Your task to perform on an android device: turn off airplane mode Image 0: 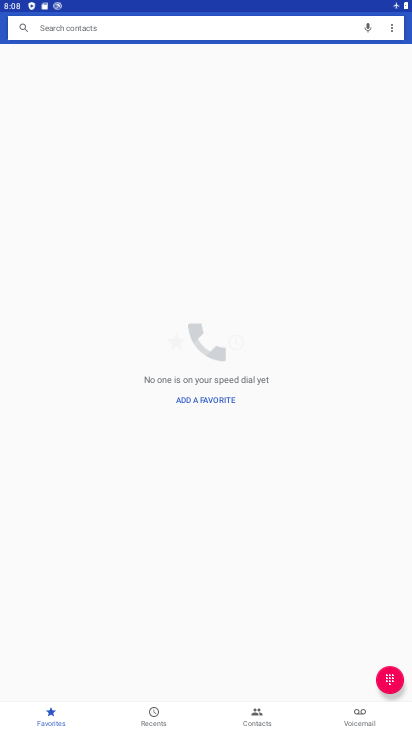
Step 0: press home button
Your task to perform on an android device: turn off airplane mode Image 1: 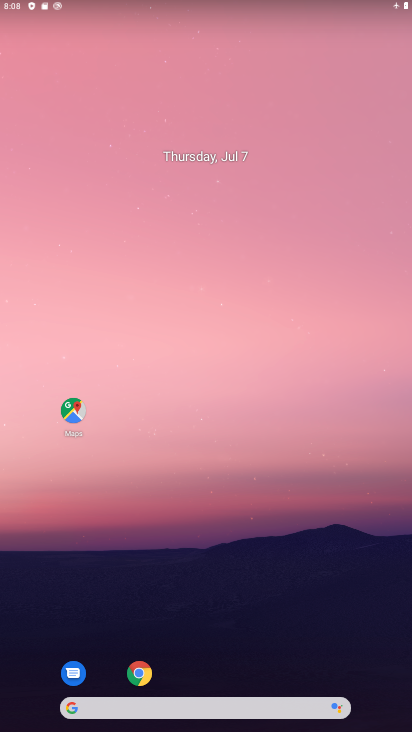
Step 1: drag from (175, 691) to (211, 5)
Your task to perform on an android device: turn off airplane mode Image 2: 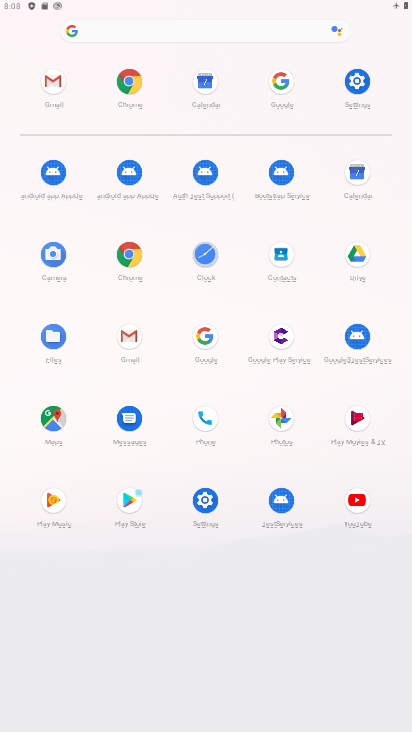
Step 2: click (215, 504)
Your task to perform on an android device: turn off airplane mode Image 3: 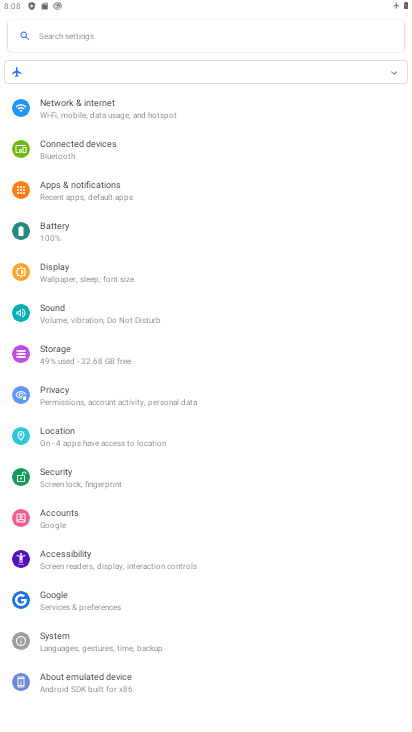
Step 3: click (95, 96)
Your task to perform on an android device: turn off airplane mode Image 4: 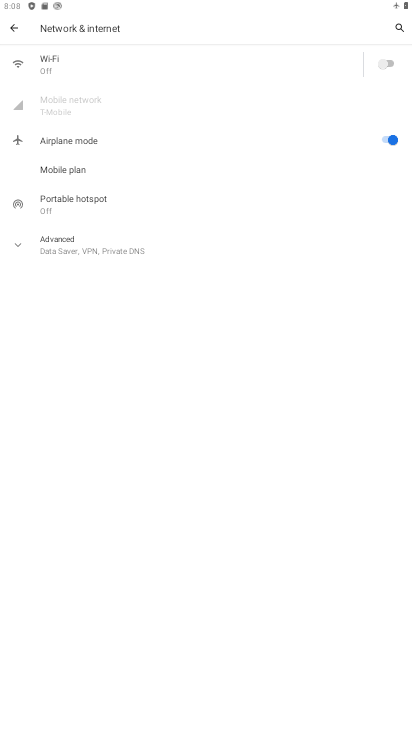
Step 4: click (382, 142)
Your task to perform on an android device: turn off airplane mode Image 5: 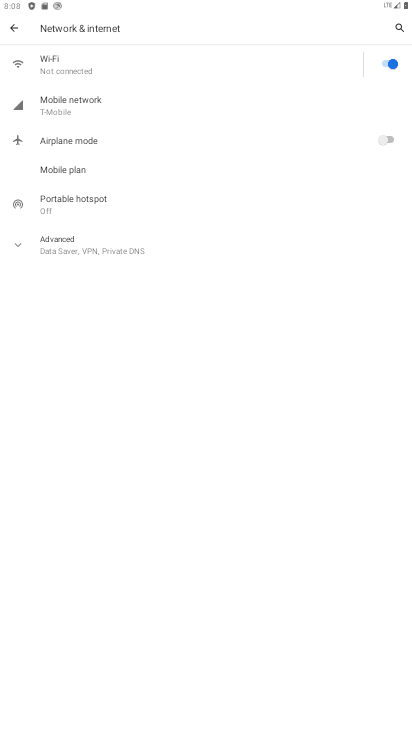
Step 5: task complete